Your task to perform on an android device: turn off notifications in google photos Image 0: 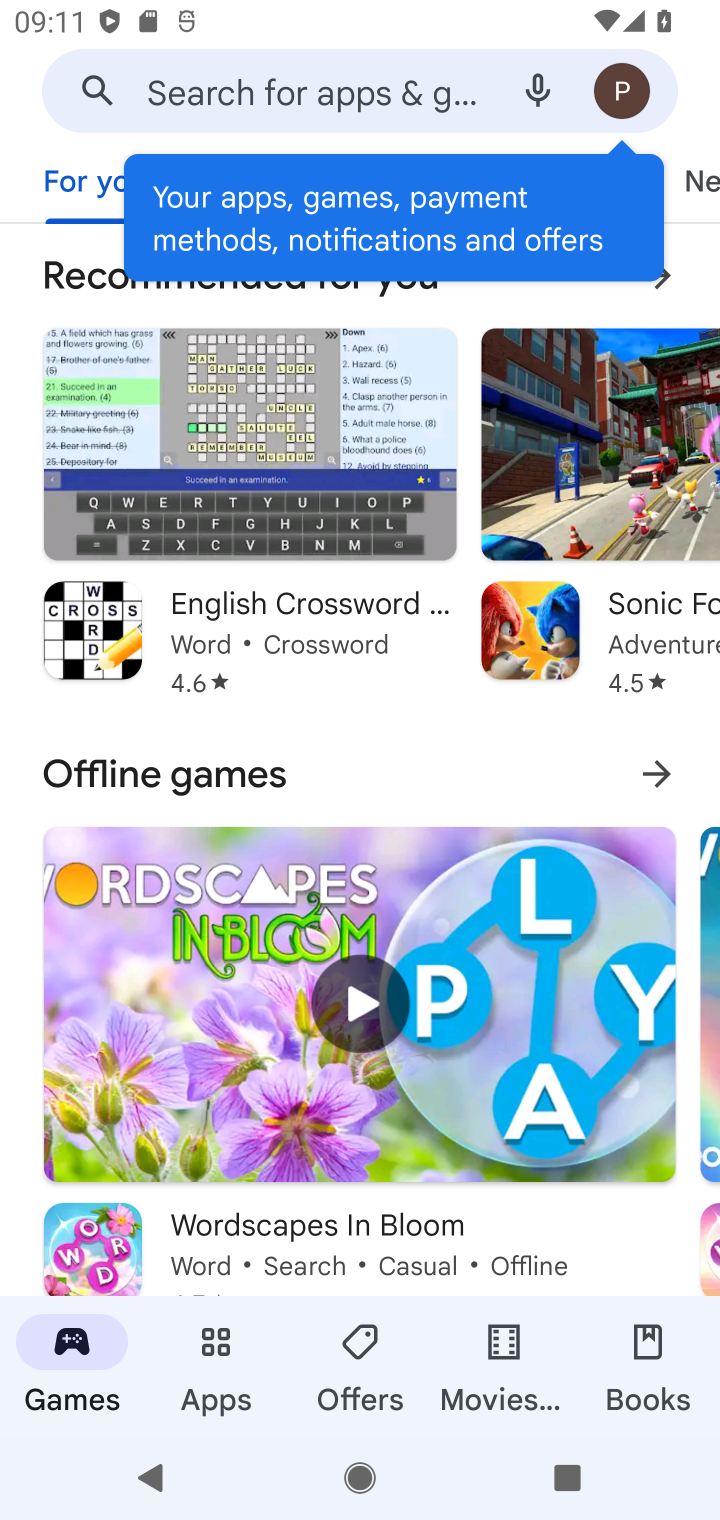
Step 0: press home button
Your task to perform on an android device: turn off notifications in google photos Image 1: 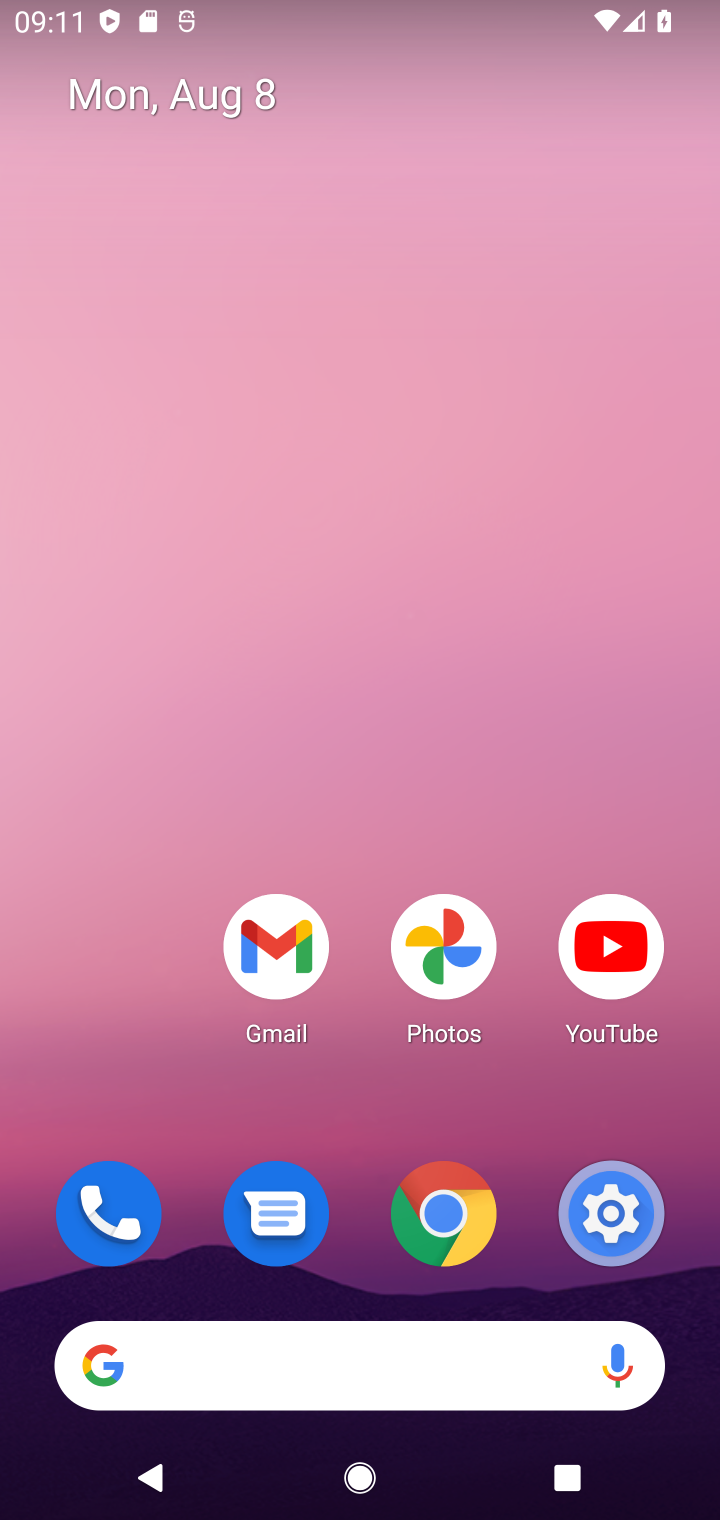
Step 1: drag from (266, 568) to (268, 161)
Your task to perform on an android device: turn off notifications in google photos Image 2: 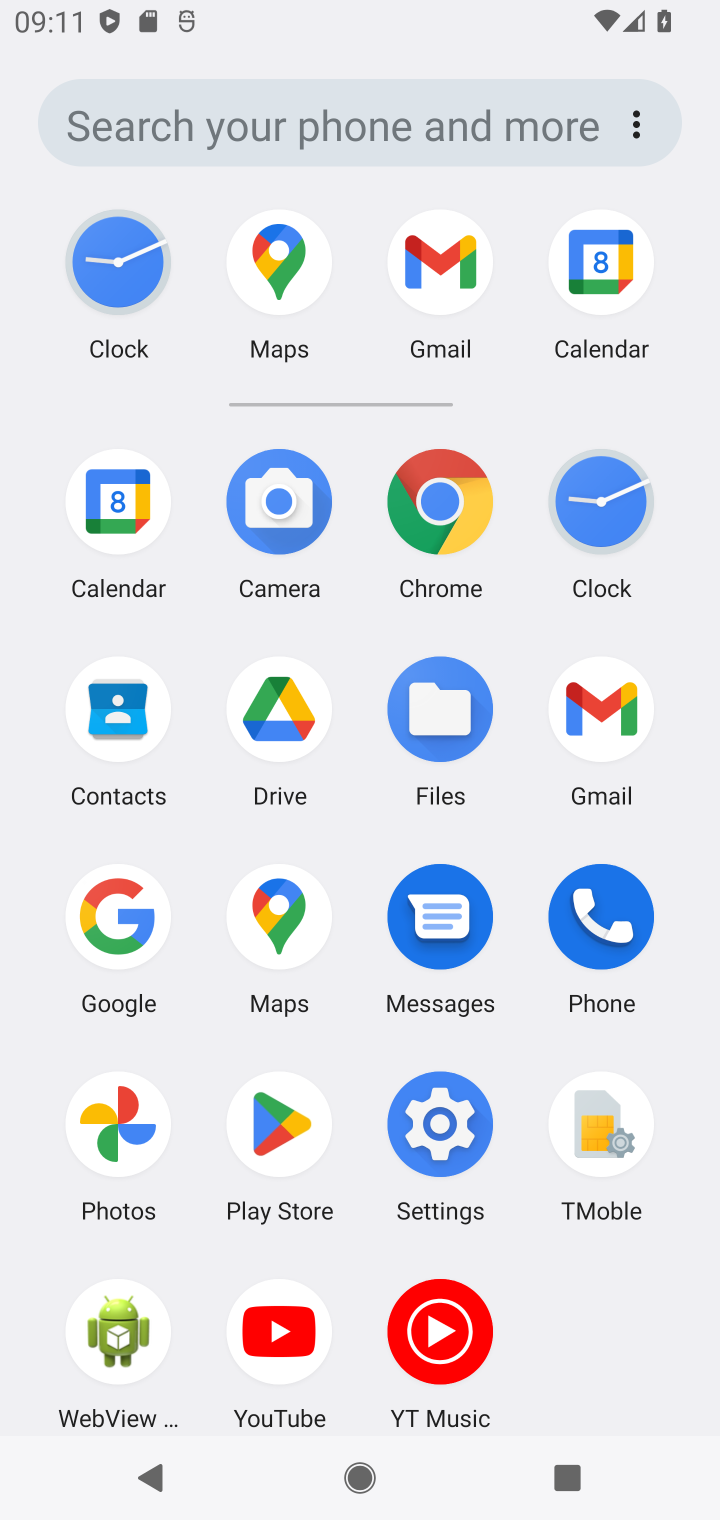
Step 2: click (138, 1148)
Your task to perform on an android device: turn off notifications in google photos Image 3: 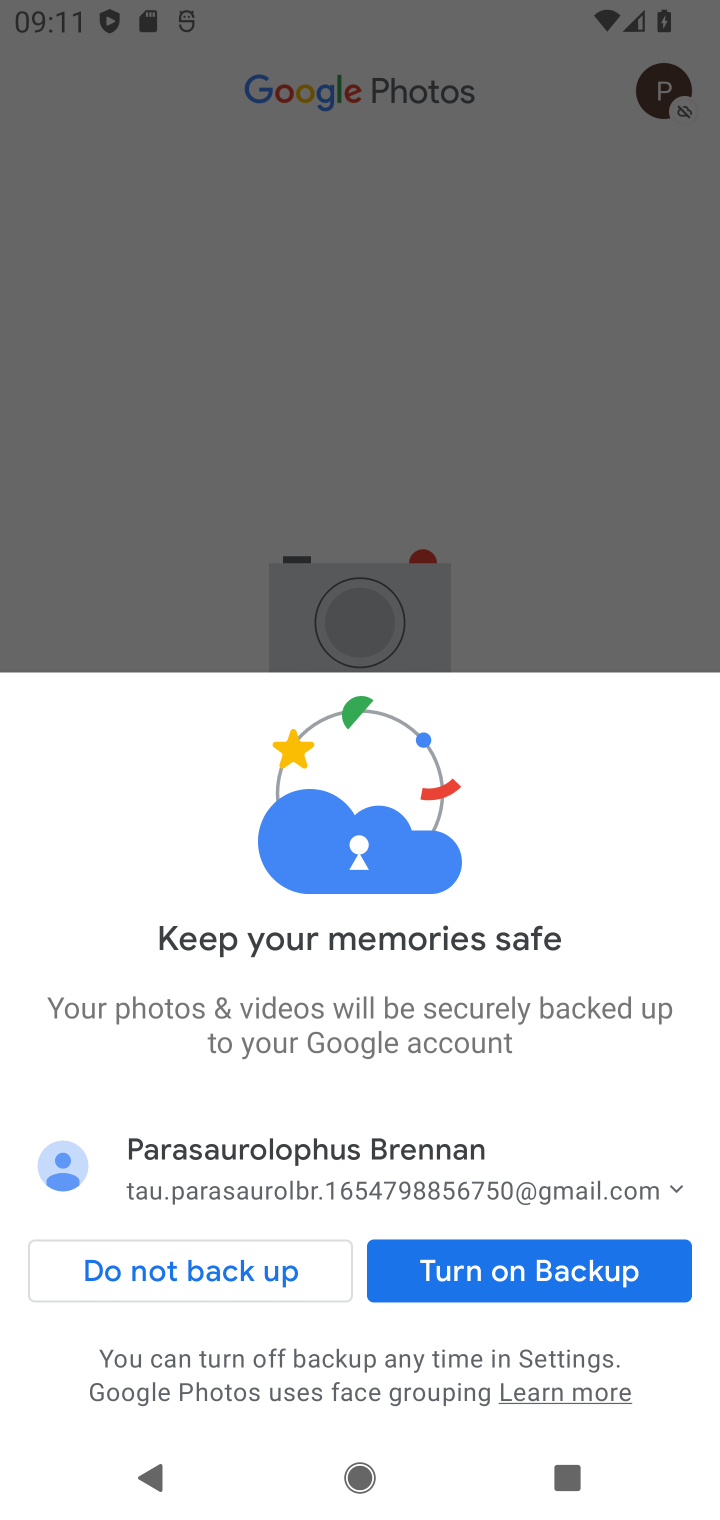
Step 3: click (512, 1265)
Your task to perform on an android device: turn off notifications in google photos Image 4: 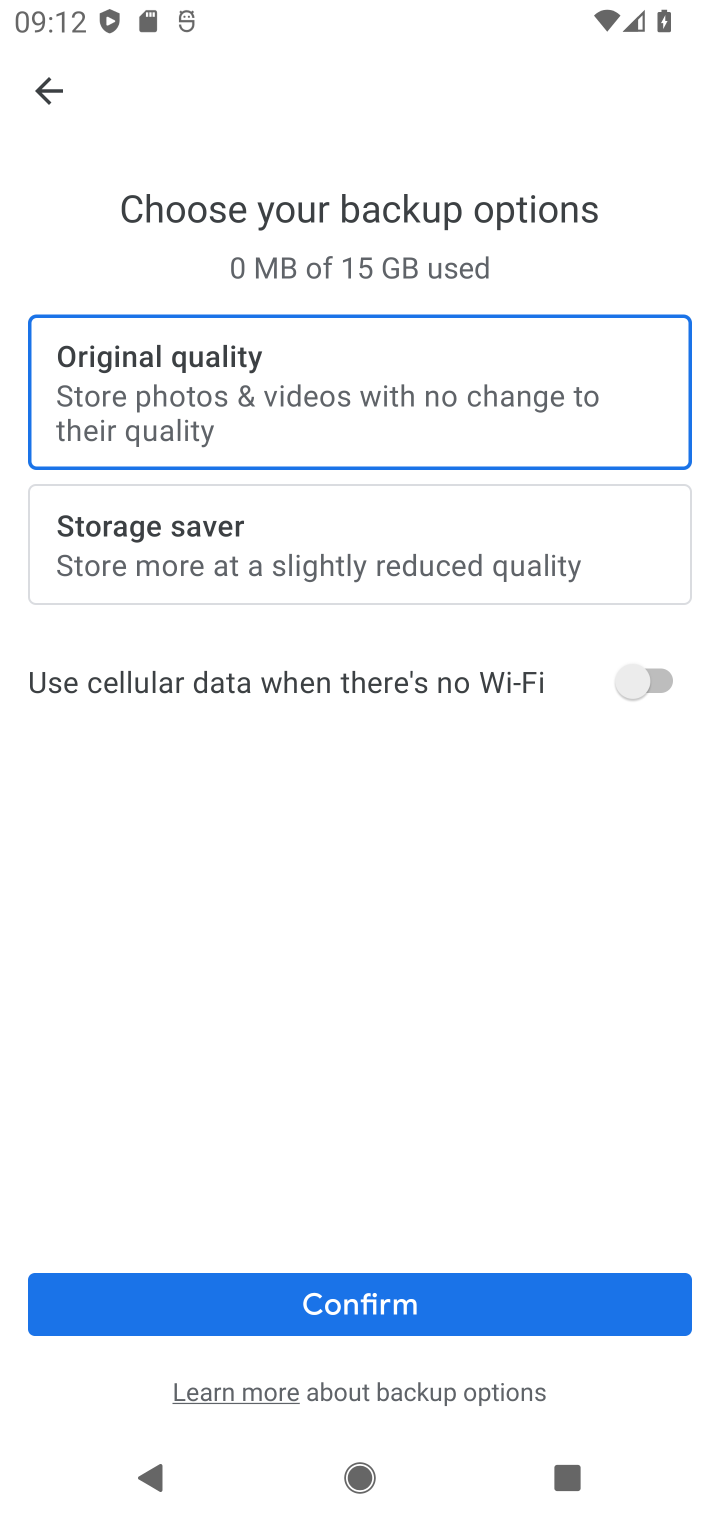
Step 4: click (460, 1292)
Your task to perform on an android device: turn off notifications in google photos Image 5: 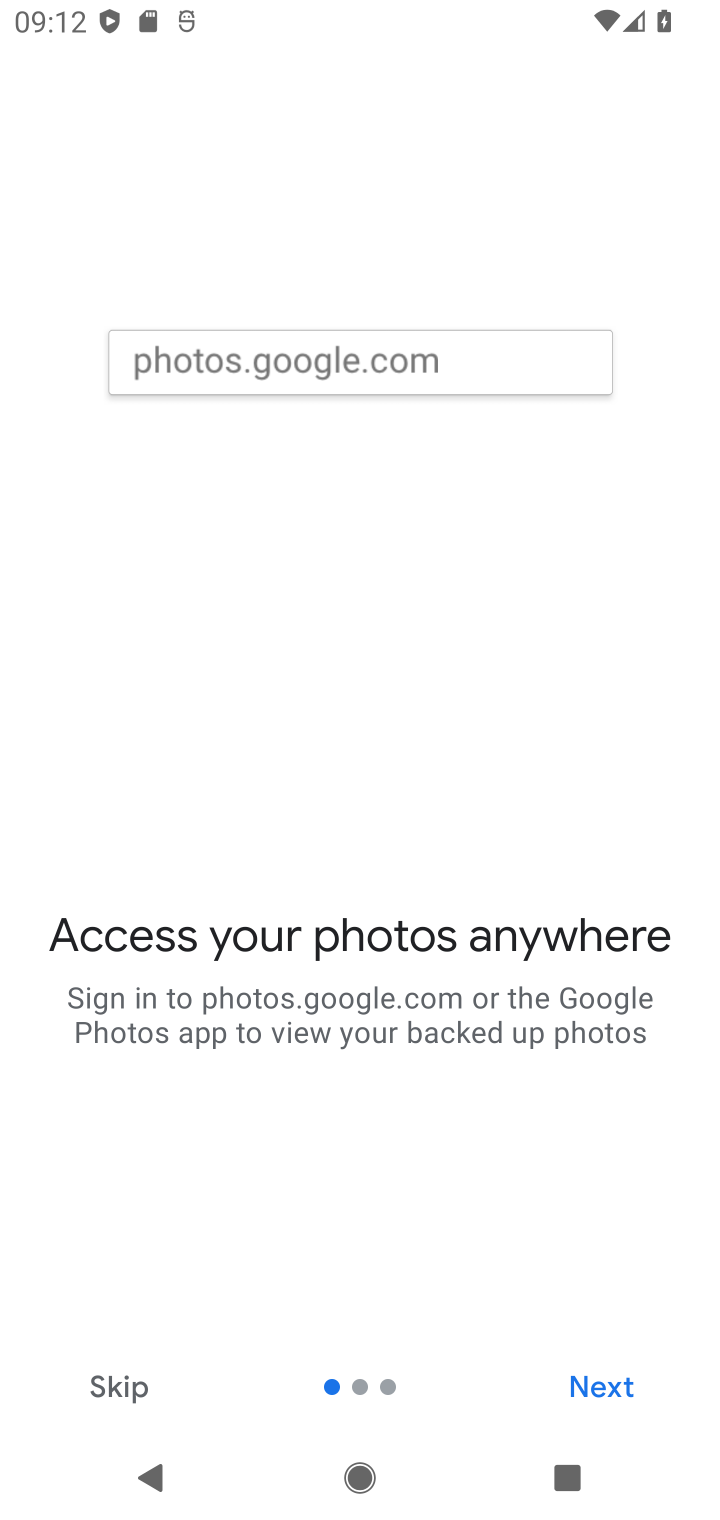
Step 5: click (143, 1392)
Your task to perform on an android device: turn off notifications in google photos Image 6: 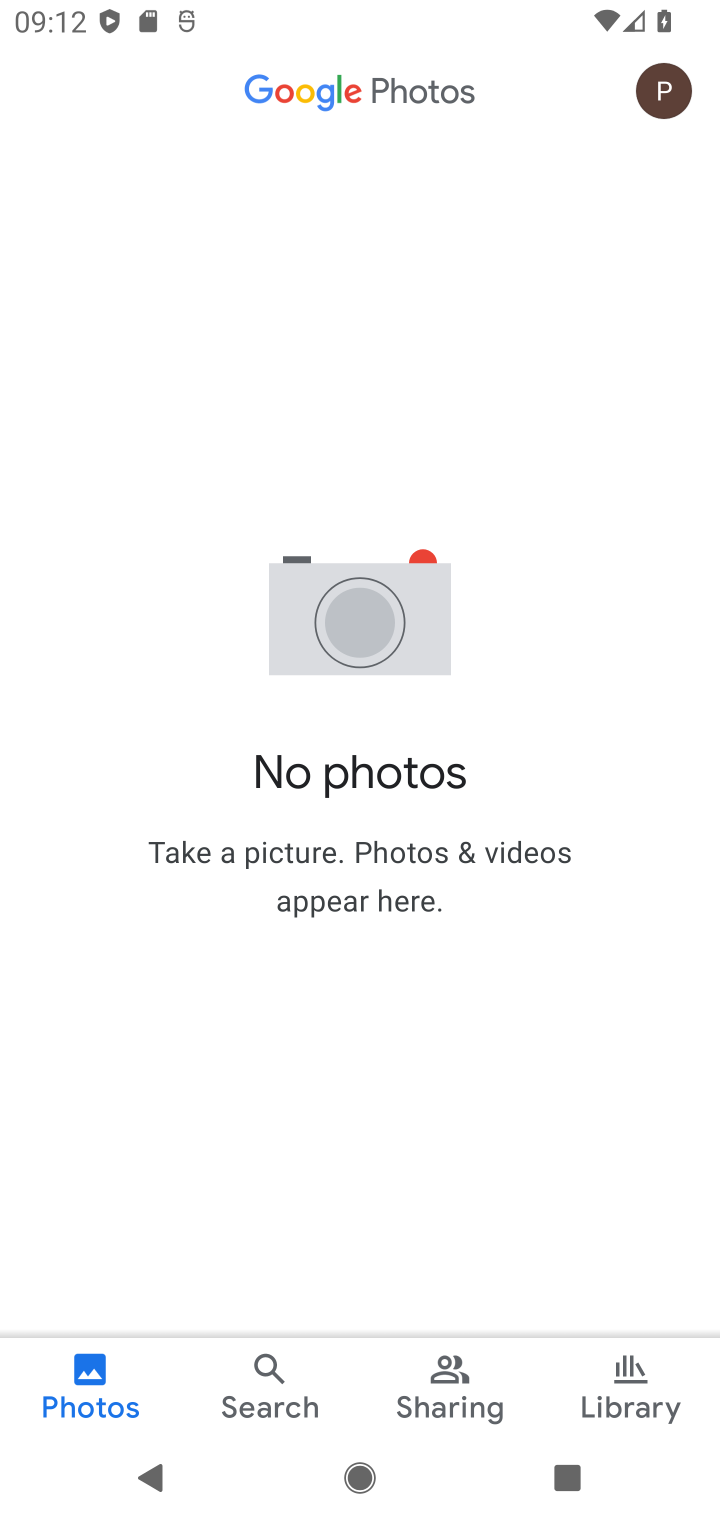
Step 6: click (686, 88)
Your task to perform on an android device: turn off notifications in google photos Image 7: 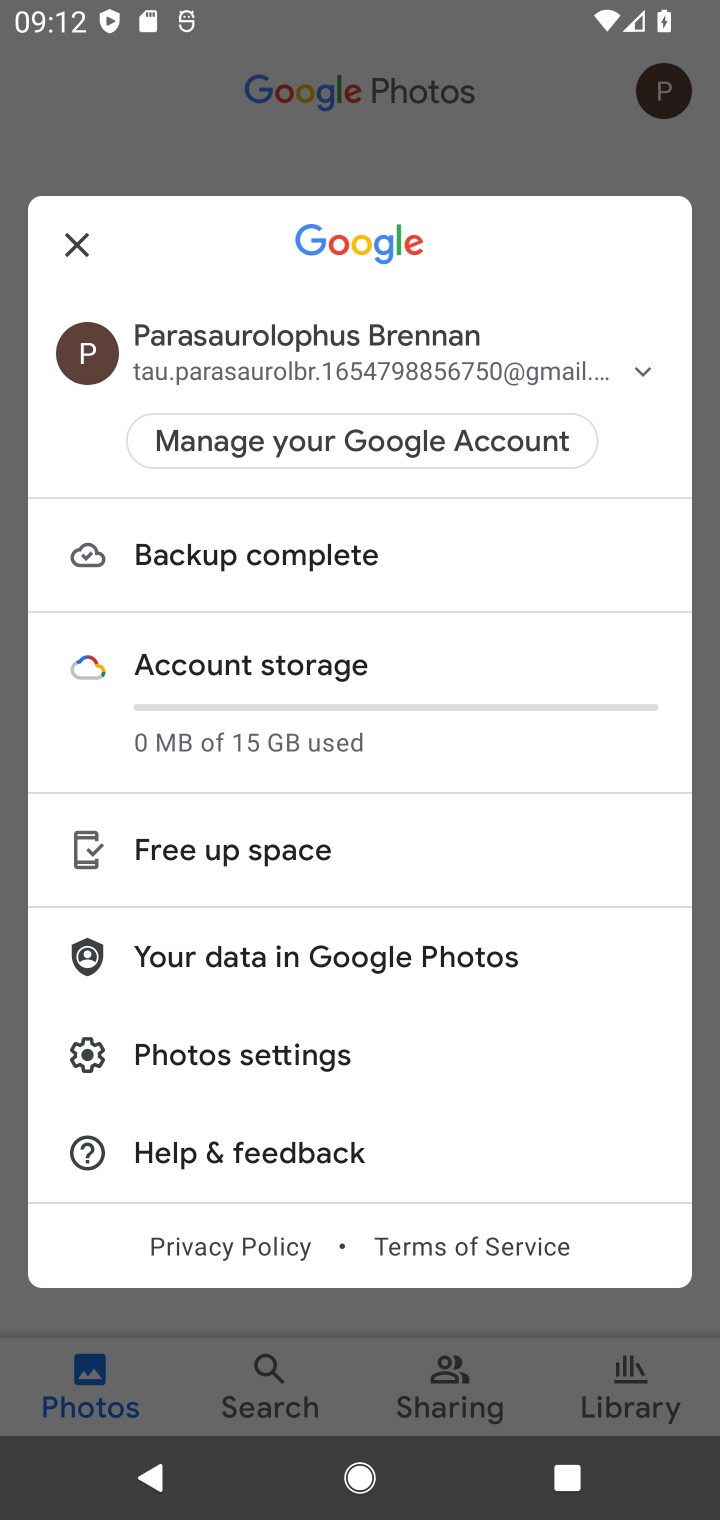
Step 7: click (347, 1060)
Your task to perform on an android device: turn off notifications in google photos Image 8: 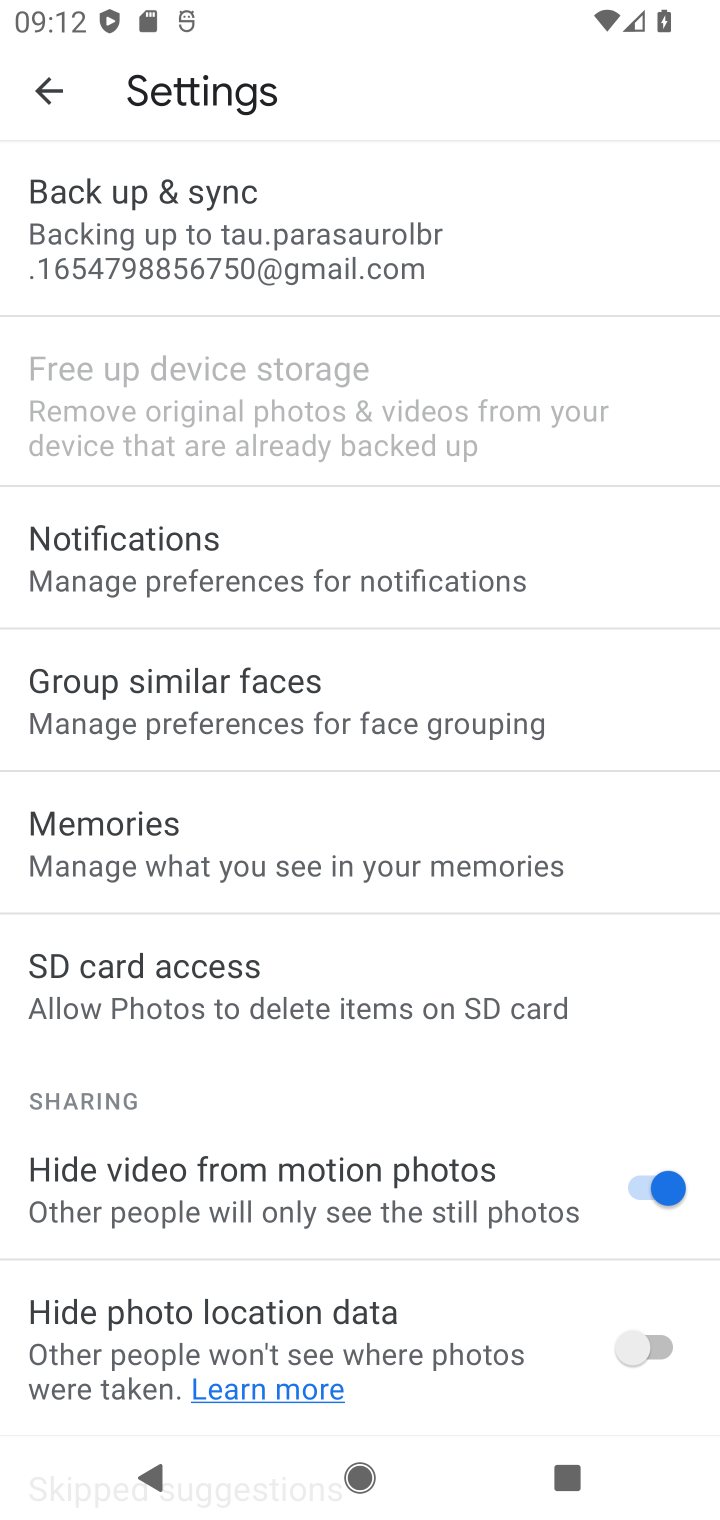
Step 8: click (245, 597)
Your task to perform on an android device: turn off notifications in google photos Image 9: 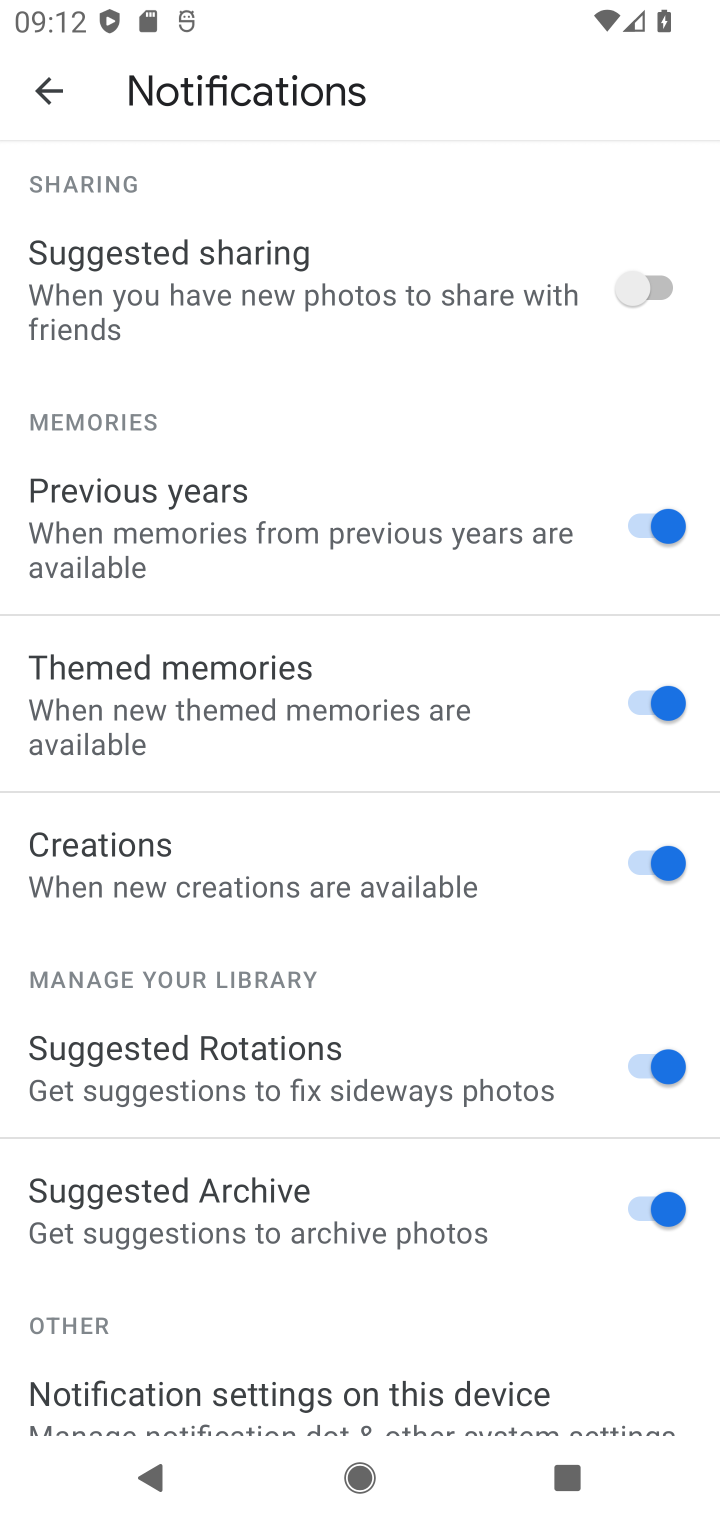
Step 9: drag from (371, 1077) to (425, 20)
Your task to perform on an android device: turn off notifications in google photos Image 10: 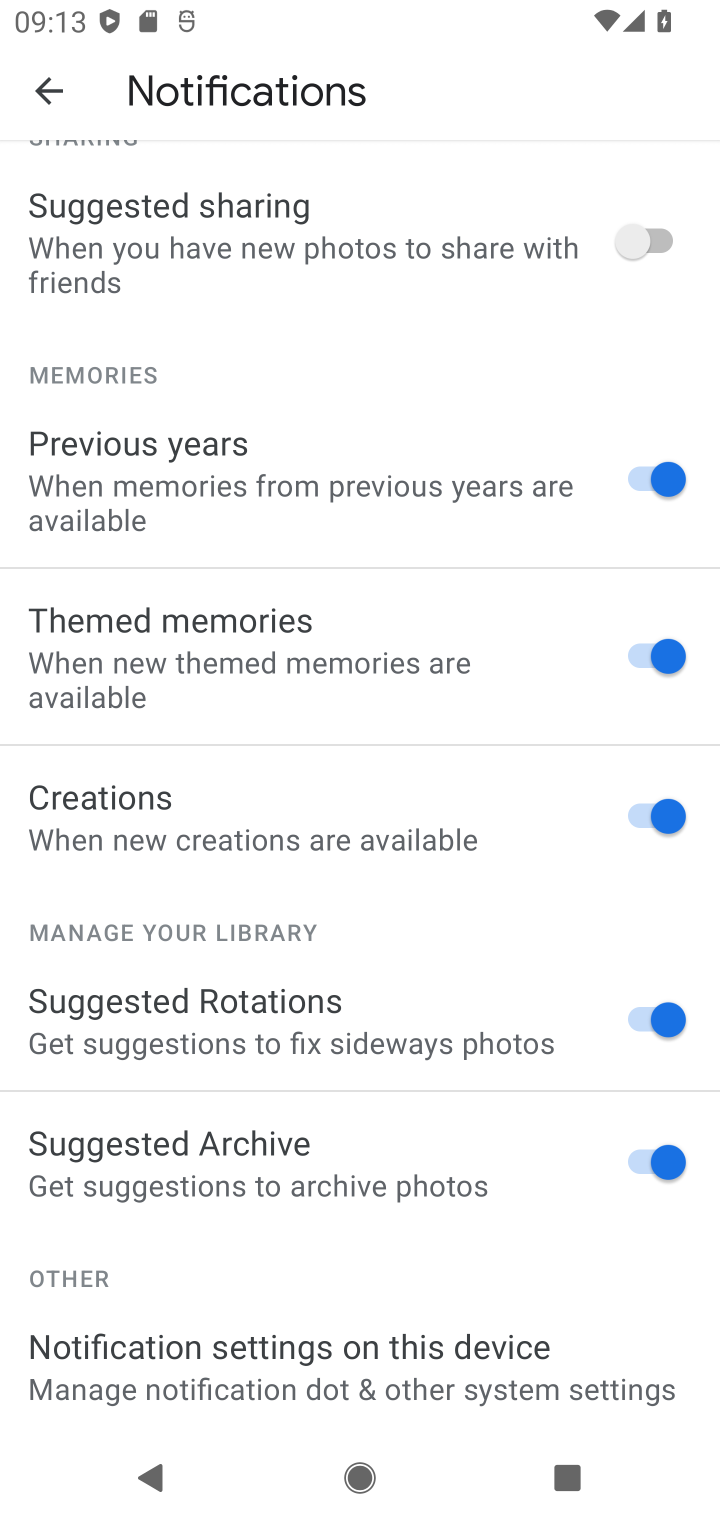
Step 10: click (371, 1340)
Your task to perform on an android device: turn off notifications in google photos Image 11: 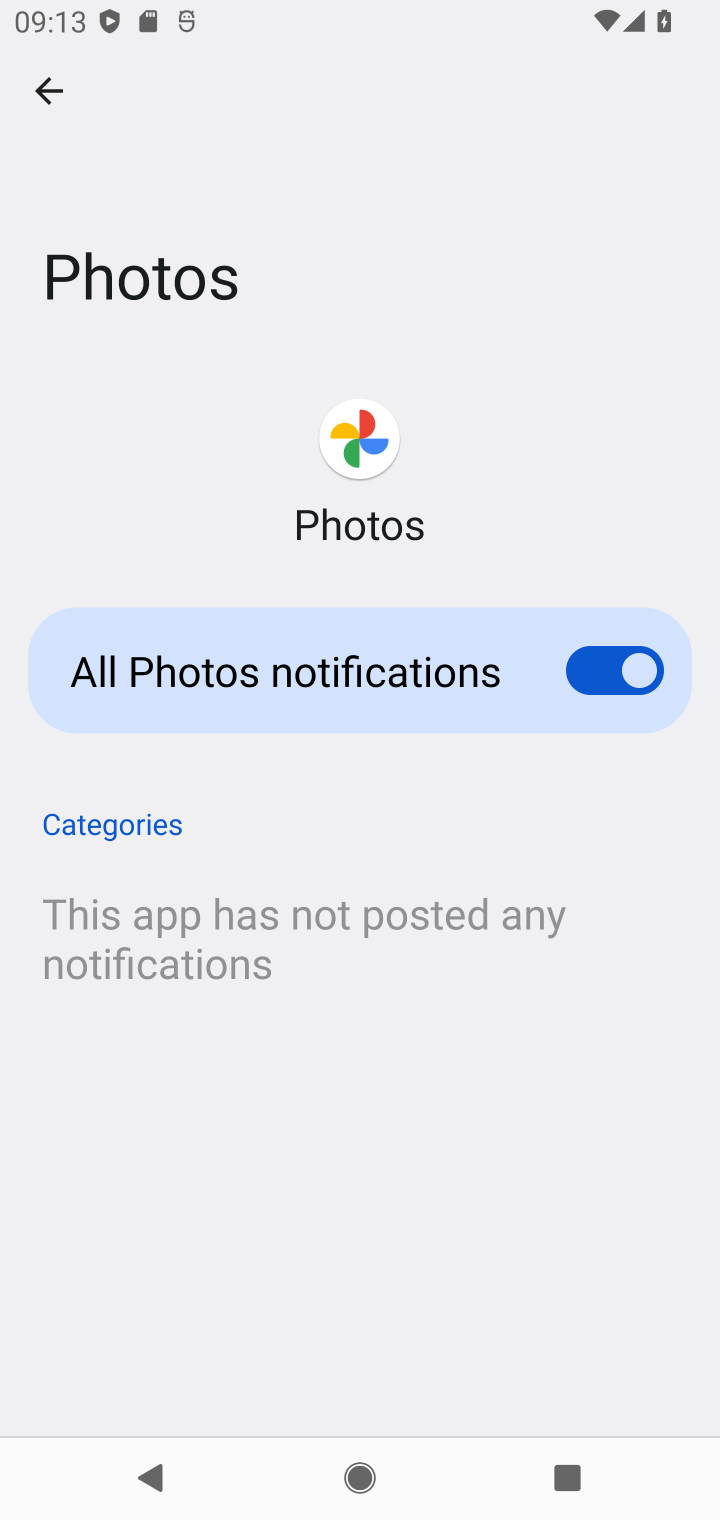
Step 11: click (585, 681)
Your task to perform on an android device: turn off notifications in google photos Image 12: 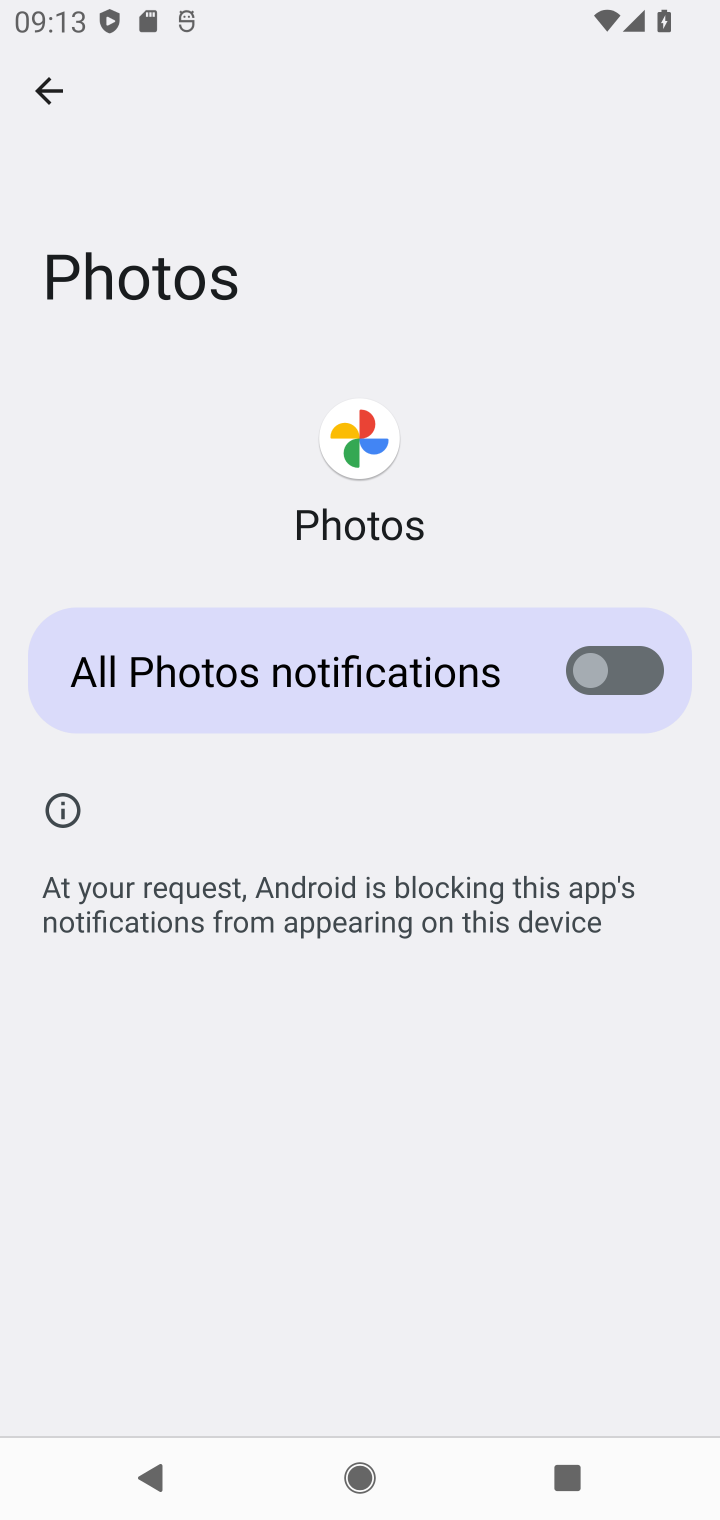
Step 12: task complete